Your task to perform on an android device: check android version Image 0: 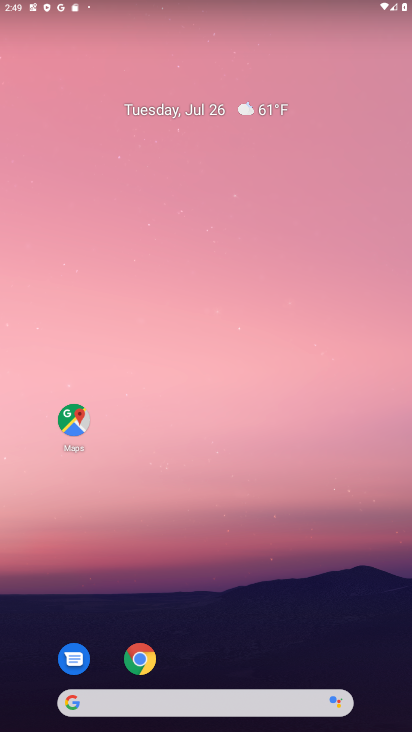
Step 0: drag from (392, 585) to (303, 62)
Your task to perform on an android device: check android version Image 1: 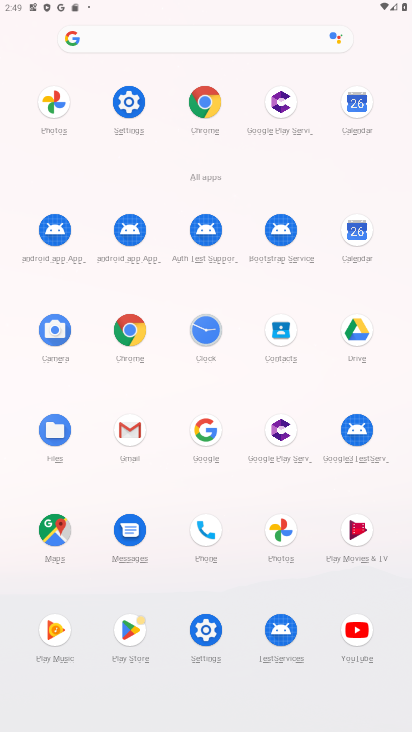
Step 1: click (203, 630)
Your task to perform on an android device: check android version Image 2: 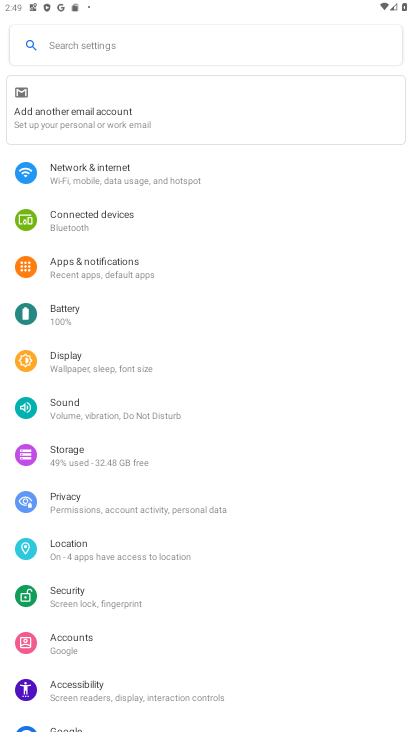
Step 2: drag from (311, 687) to (287, 145)
Your task to perform on an android device: check android version Image 3: 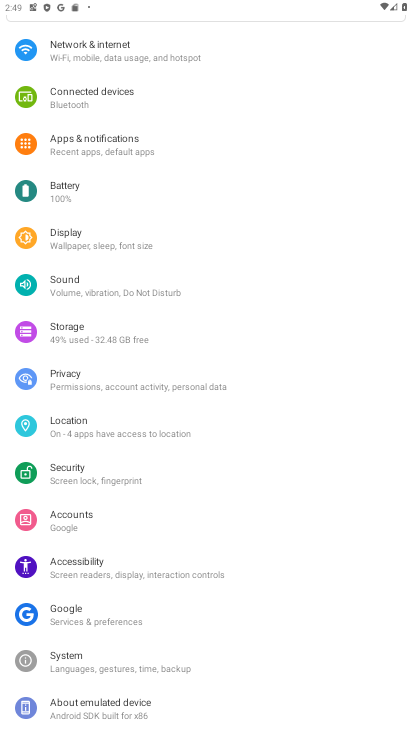
Step 3: click (73, 707)
Your task to perform on an android device: check android version Image 4: 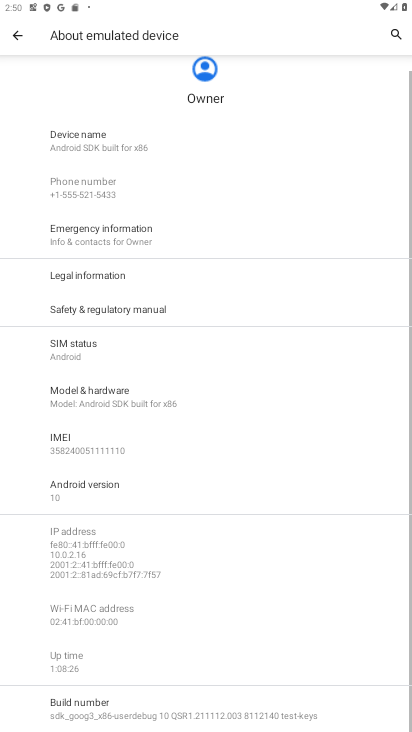
Step 4: drag from (230, 607) to (220, 367)
Your task to perform on an android device: check android version Image 5: 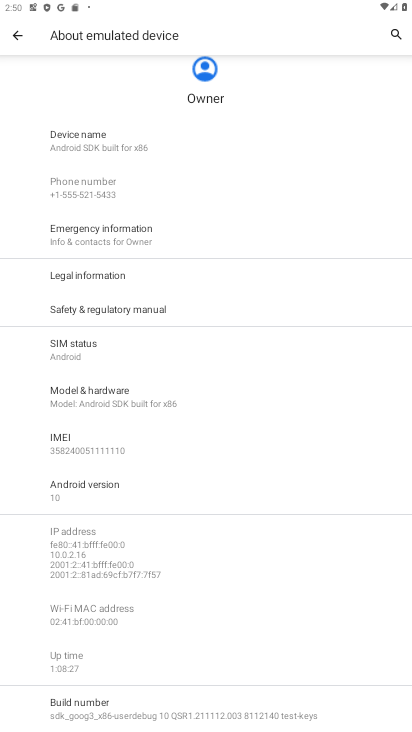
Step 5: click (91, 492)
Your task to perform on an android device: check android version Image 6: 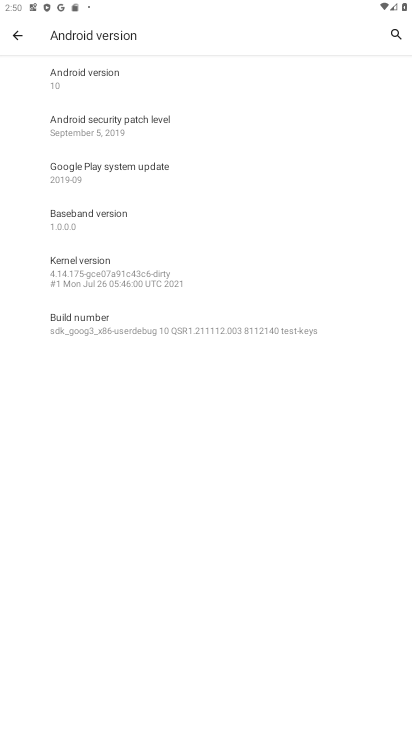
Step 6: click (92, 87)
Your task to perform on an android device: check android version Image 7: 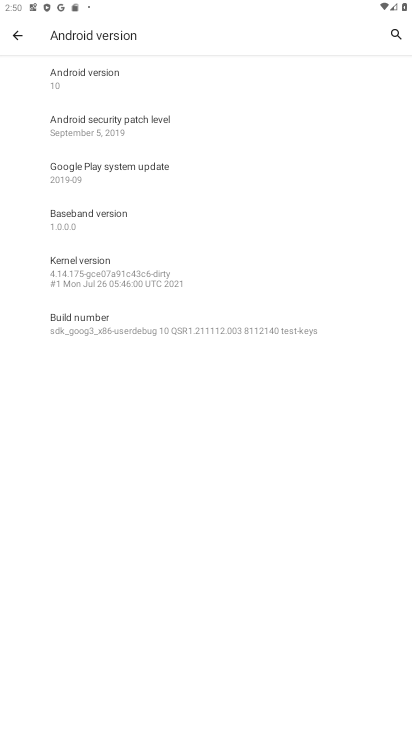
Step 7: task complete